Your task to perform on an android device: turn on notifications settings in the gmail app Image 0: 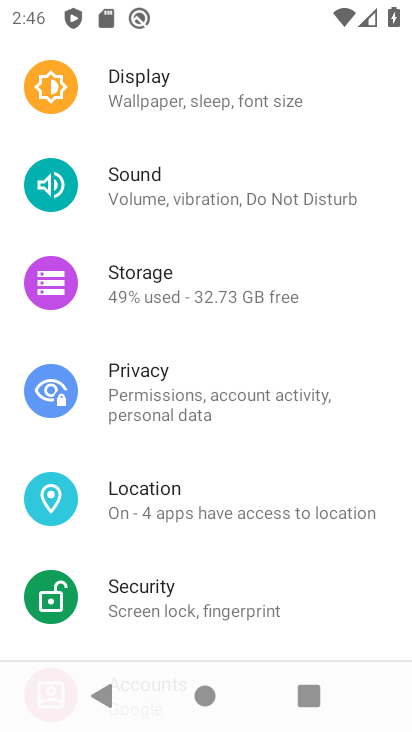
Step 0: press home button
Your task to perform on an android device: turn on notifications settings in the gmail app Image 1: 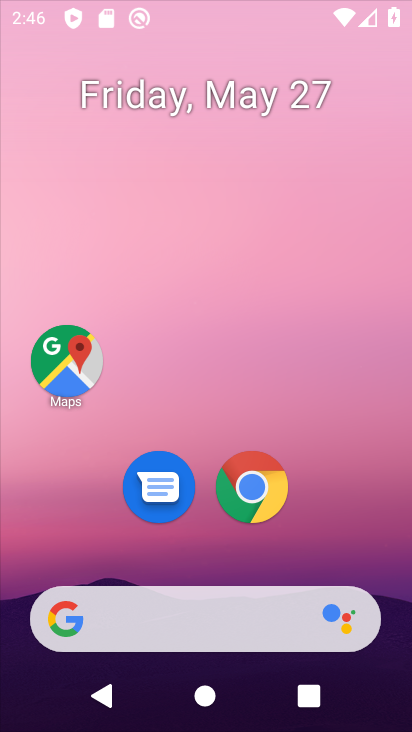
Step 1: drag from (132, 728) to (234, 52)
Your task to perform on an android device: turn on notifications settings in the gmail app Image 2: 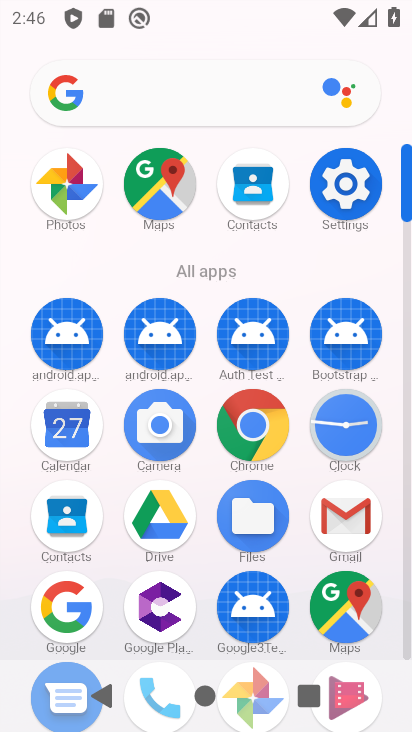
Step 2: click (326, 518)
Your task to perform on an android device: turn on notifications settings in the gmail app Image 3: 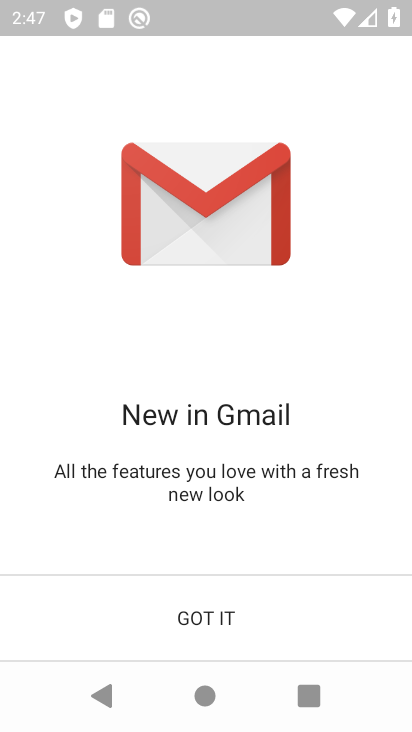
Step 3: click (179, 616)
Your task to perform on an android device: turn on notifications settings in the gmail app Image 4: 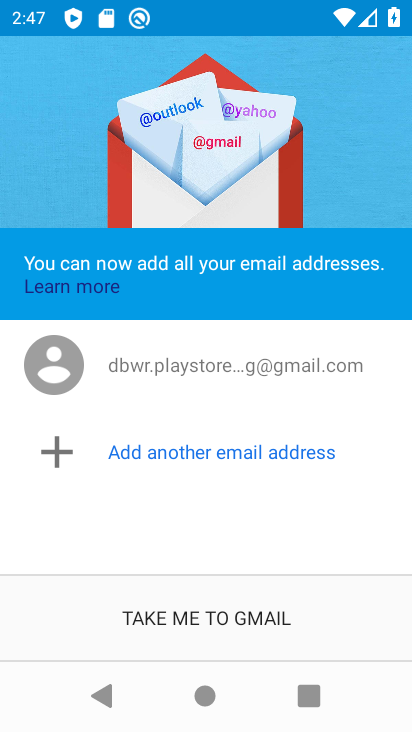
Step 4: click (247, 616)
Your task to perform on an android device: turn on notifications settings in the gmail app Image 5: 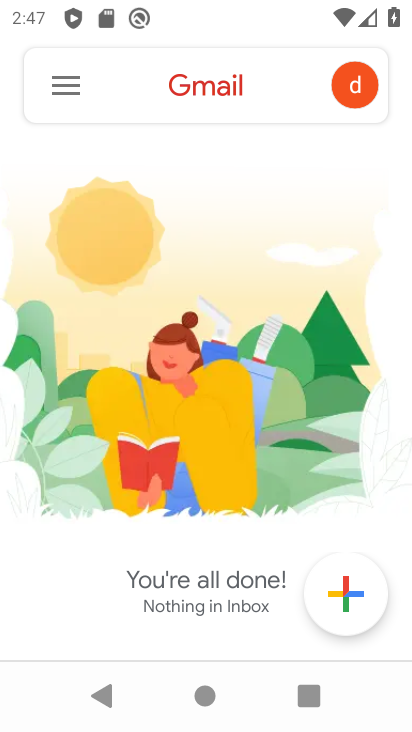
Step 5: click (65, 90)
Your task to perform on an android device: turn on notifications settings in the gmail app Image 6: 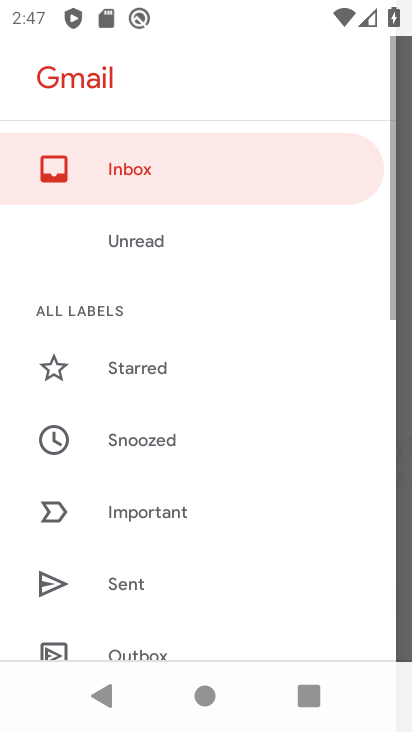
Step 6: drag from (213, 618) to (186, 151)
Your task to perform on an android device: turn on notifications settings in the gmail app Image 7: 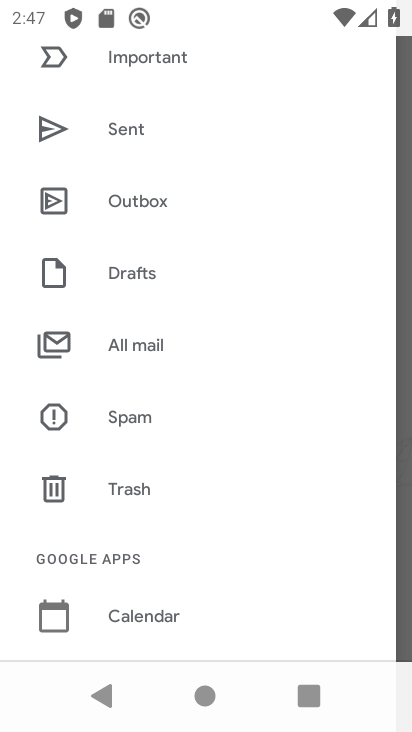
Step 7: drag from (226, 596) to (239, 234)
Your task to perform on an android device: turn on notifications settings in the gmail app Image 8: 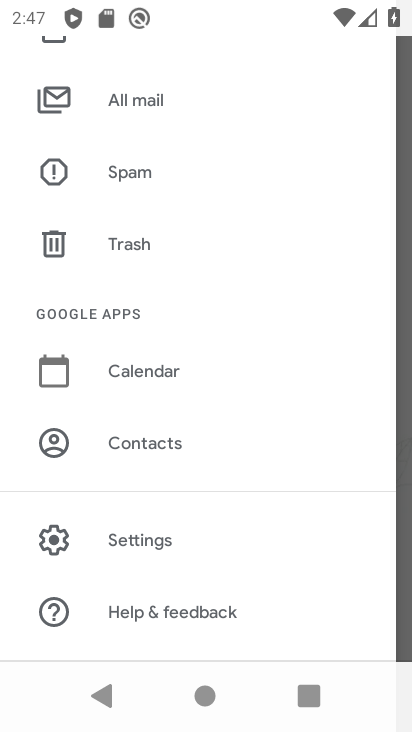
Step 8: click (153, 551)
Your task to perform on an android device: turn on notifications settings in the gmail app Image 9: 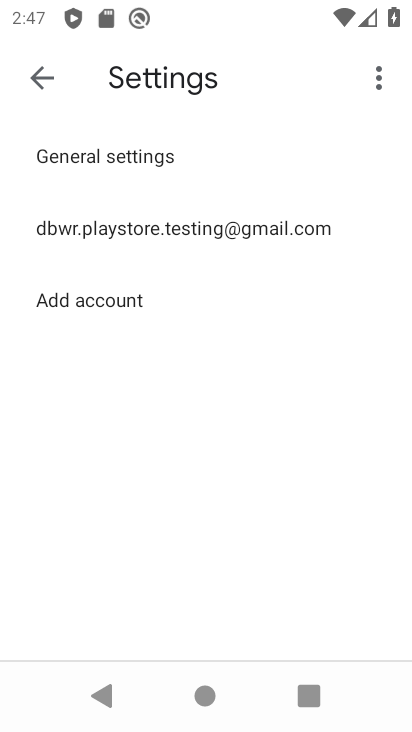
Step 9: click (146, 232)
Your task to perform on an android device: turn on notifications settings in the gmail app Image 10: 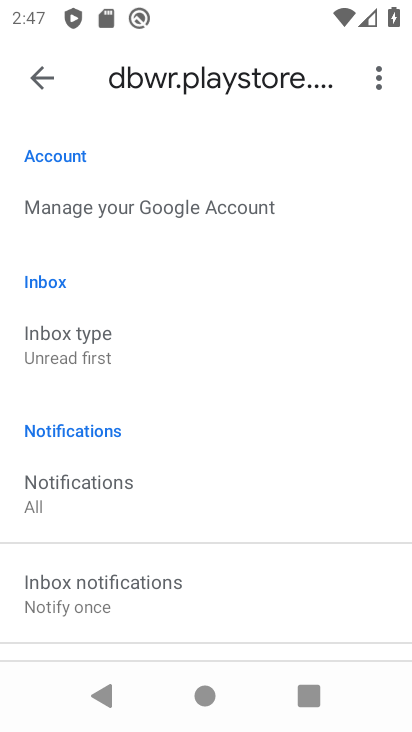
Step 10: drag from (194, 600) to (221, 265)
Your task to perform on an android device: turn on notifications settings in the gmail app Image 11: 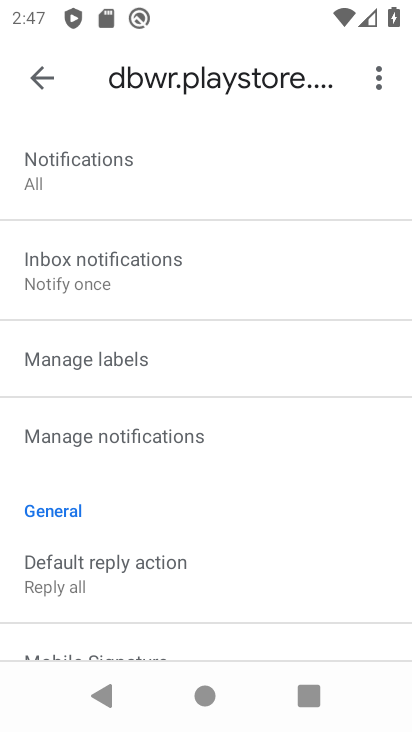
Step 11: click (96, 174)
Your task to perform on an android device: turn on notifications settings in the gmail app Image 12: 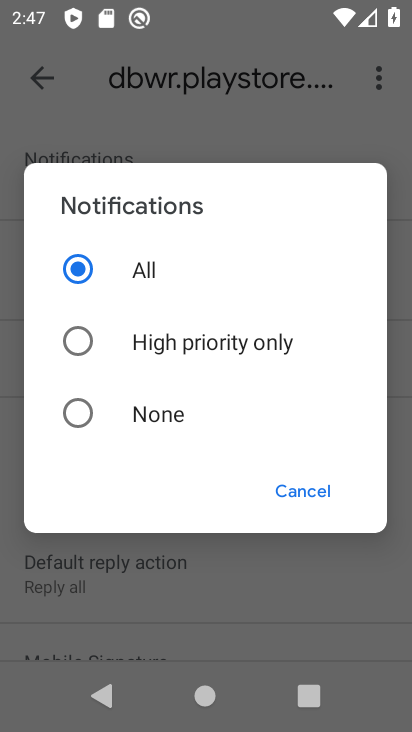
Step 12: task complete